Your task to perform on an android device: Open calendar and show me the first week of next month Image 0: 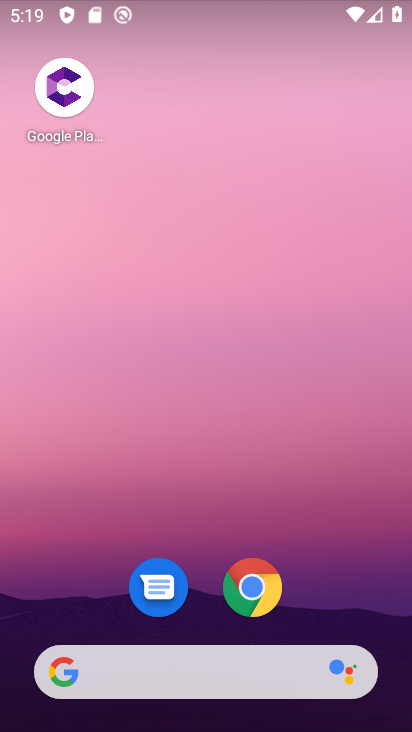
Step 0: click (250, 174)
Your task to perform on an android device: Open calendar and show me the first week of next month Image 1: 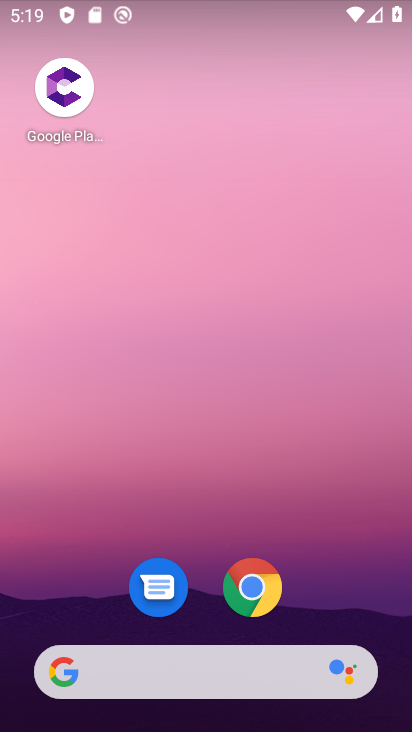
Step 1: press home button
Your task to perform on an android device: Open calendar and show me the first week of next month Image 2: 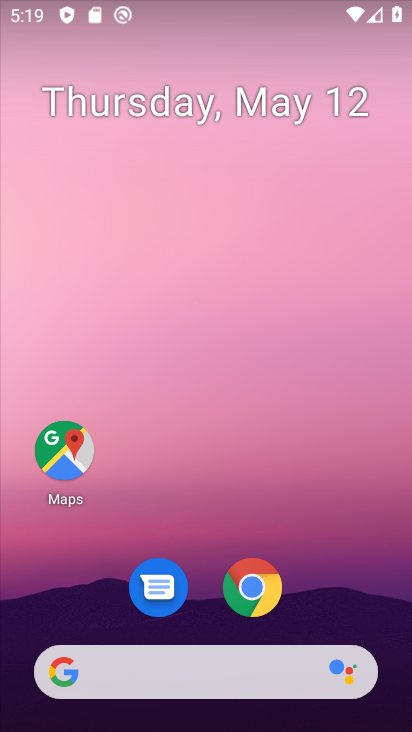
Step 2: drag from (306, 587) to (245, 119)
Your task to perform on an android device: Open calendar and show me the first week of next month Image 3: 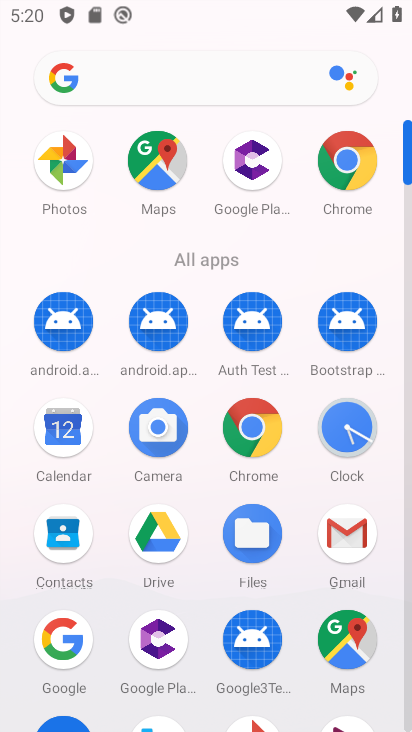
Step 3: drag from (201, 682) to (205, 445)
Your task to perform on an android device: Open calendar and show me the first week of next month Image 4: 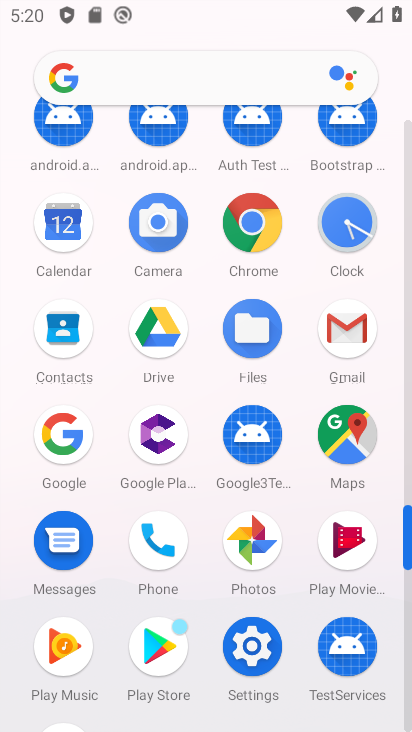
Step 4: click (64, 261)
Your task to perform on an android device: Open calendar and show me the first week of next month Image 5: 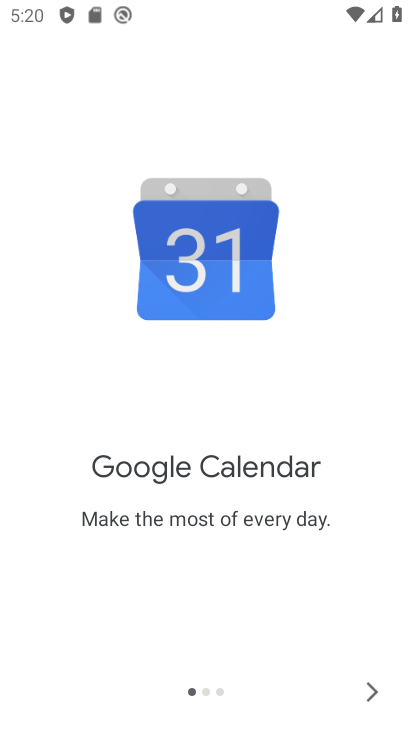
Step 5: click (379, 697)
Your task to perform on an android device: Open calendar and show me the first week of next month Image 6: 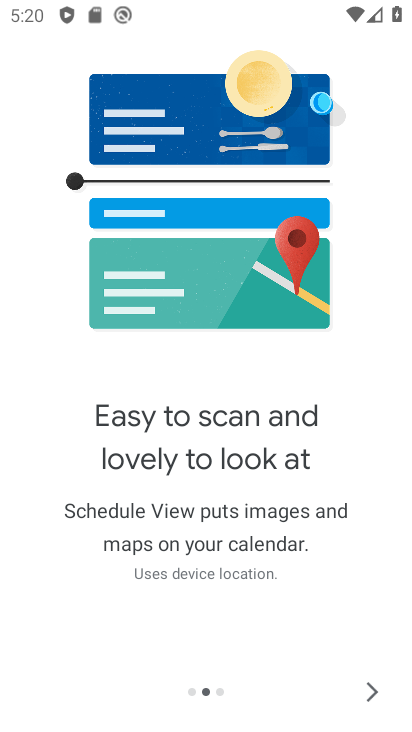
Step 6: click (379, 696)
Your task to perform on an android device: Open calendar and show me the first week of next month Image 7: 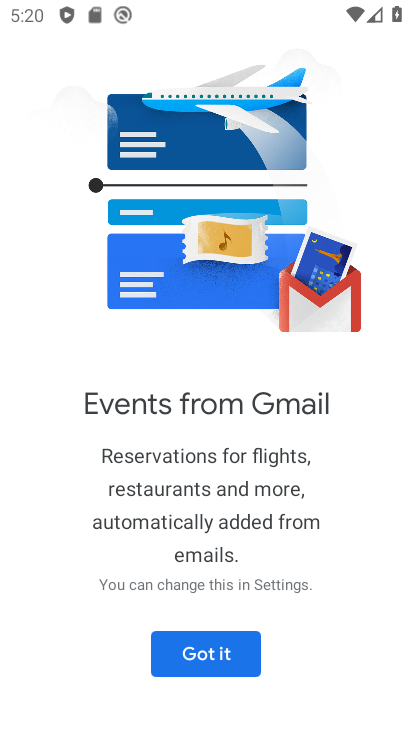
Step 7: click (216, 667)
Your task to perform on an android device: Open calendar and show me the first week of next month Image 8: 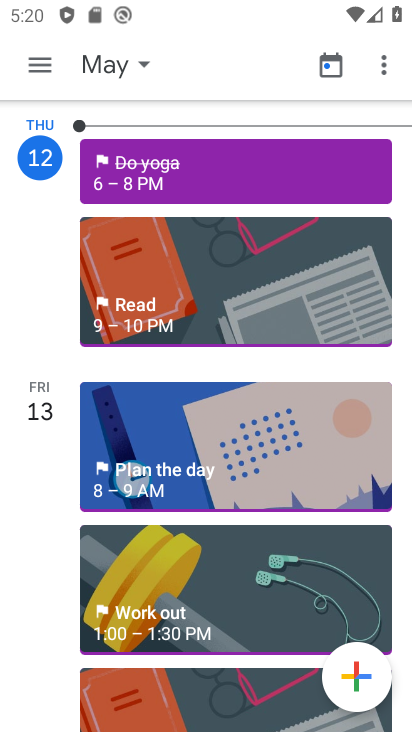
Step 8: press home button
Your task to perform on an android device: Open calendar and show me the first week of next month Image 9: 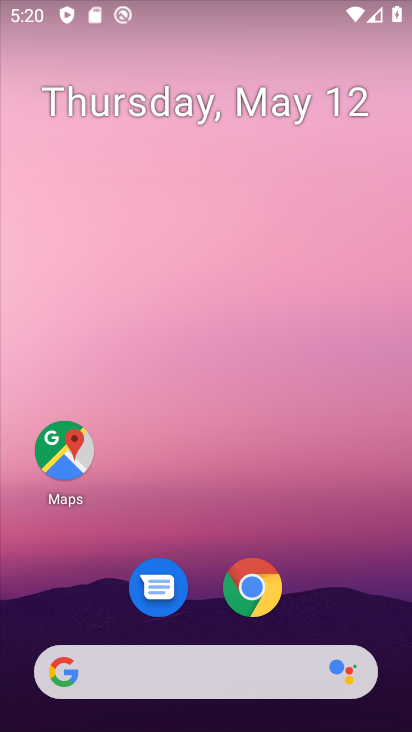
Step 9: drag from (277, 635) to (257, 302)
Your task to perform on an android device: Open calendar and show me the first week of next month Image 10: 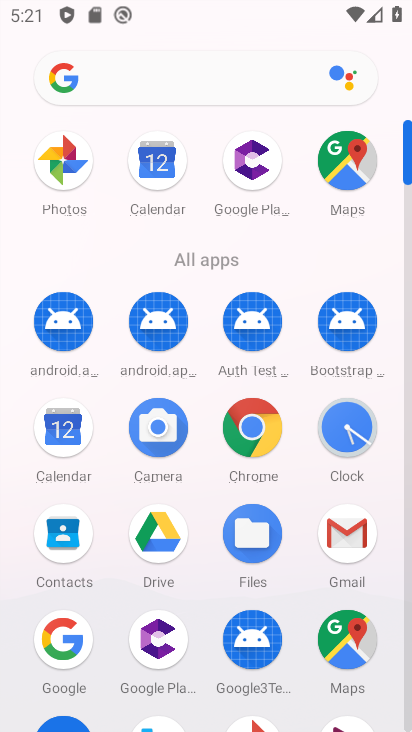
Step 10: click (62, 475)
Your task to perform on an android device: Open calendar and show me the first week of next month Image 11: 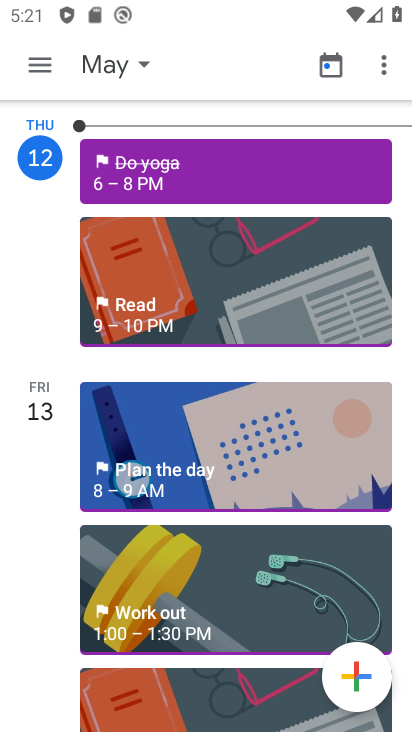
Step 11: click (88, 66)
Your task to perform on an android device: Open calendar and show me the first week of next month Image 12: 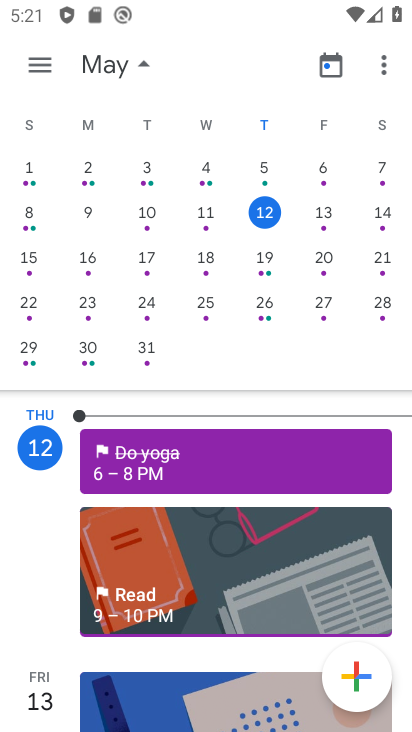
Step 12: drag from (320, 250) to (7, 257)
Your task to perform on an android device: Open calendar and show me the first week of next month Image 13: 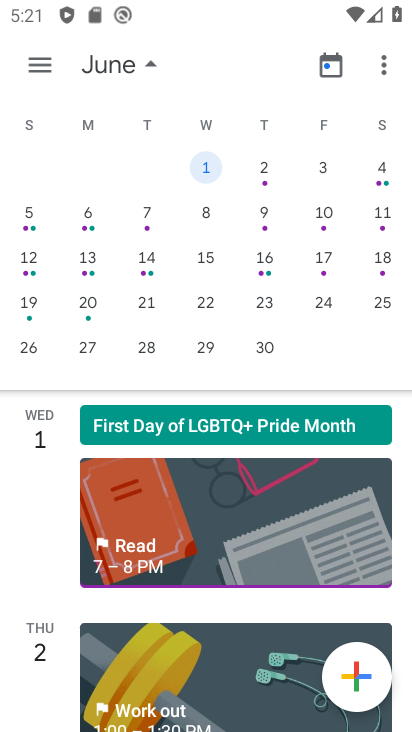
Step 13: click (30, 220)
Your task to perform on an android device: Open calendar and show me the first week of next month Image 14: 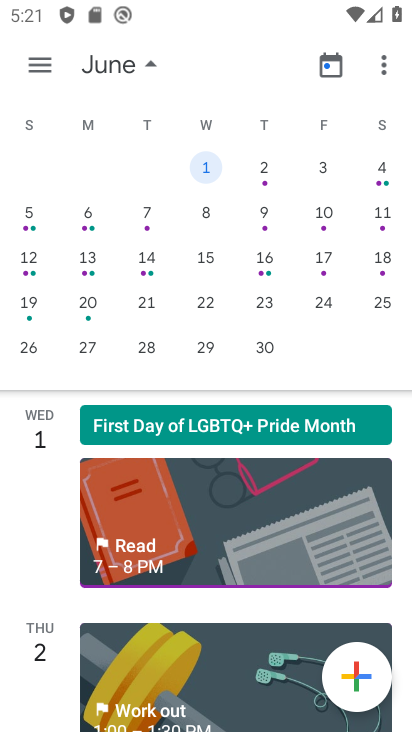
Step 14: click (30, 215)
Your task to perform on an android device: Open calendar and show me the first week of next month Image 15: 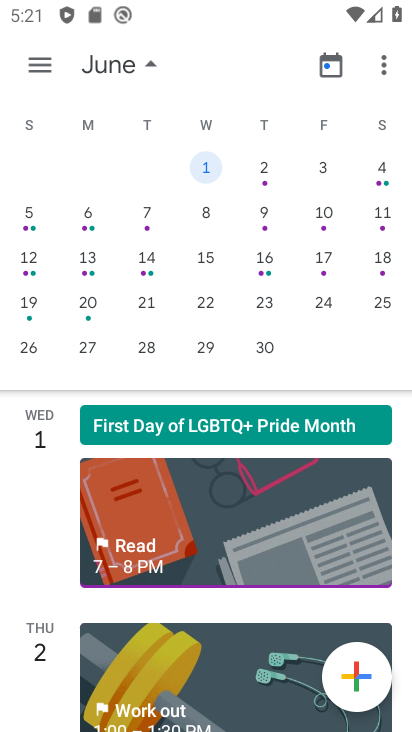
Step 15: click (30, 228)
Your task to perform on an android device: Open calendar and show me the first week of next month Image 16: 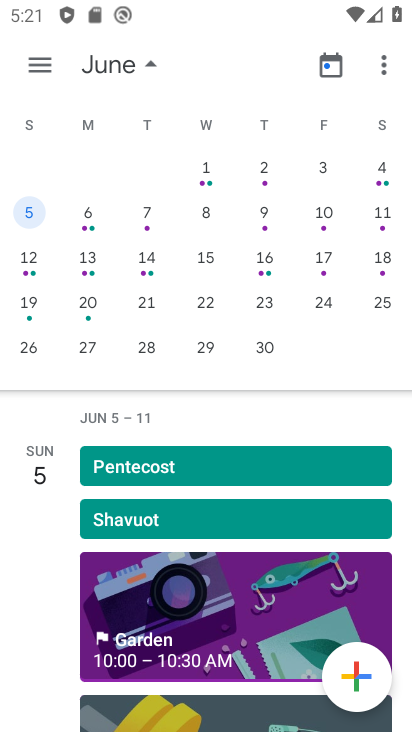
Step 16: click (35, 65)
Your task to perform on an android device: Open calendar and show me the first week of next month Image 17: 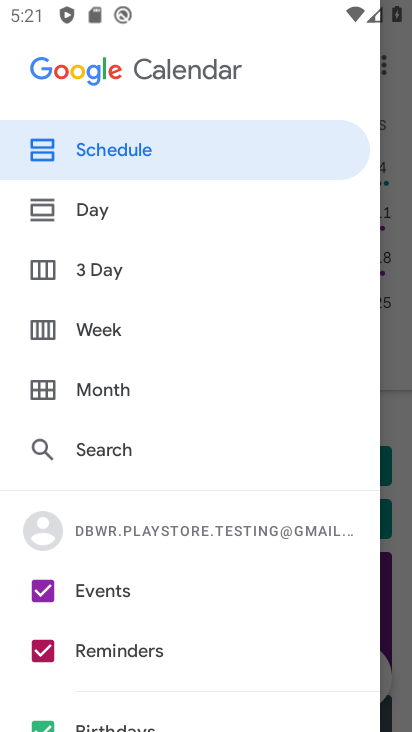
Step 17: click (102, 335)
Your task to perform on an android device: Open calendar and show me the first week of next month Image 18: 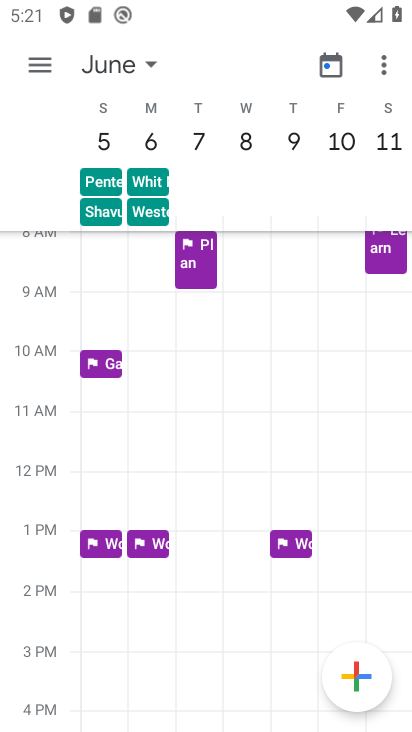
Step 18: task complete